Your task to perform on an android device: Open display settings Image 0: 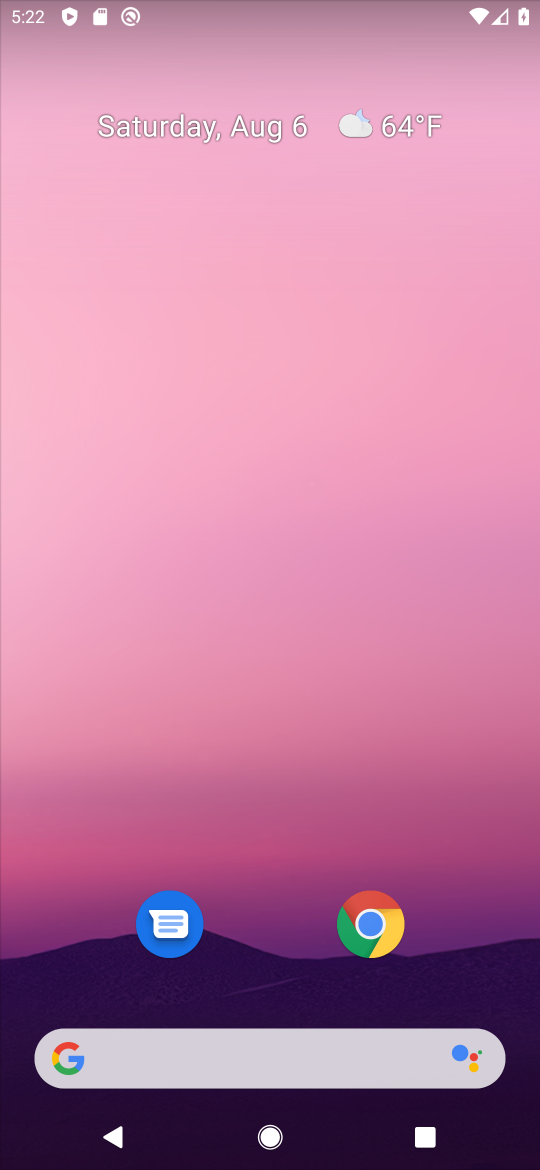
Step 0: drag from (269, 903) to (214, 1)
Your task to perform on an android device: Open display settings Image 1: 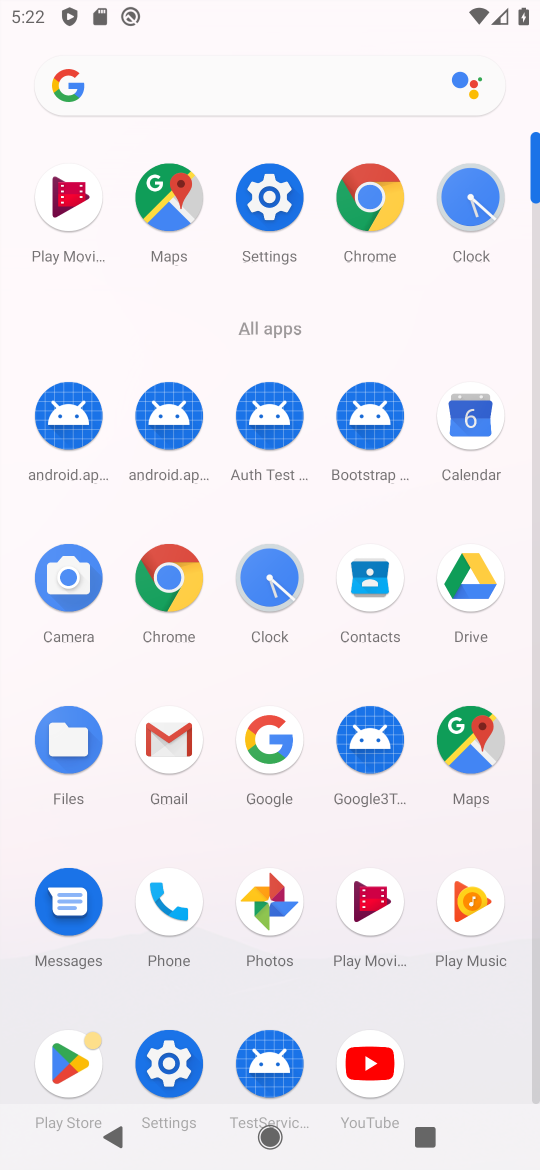
Step 1: click (272, 194)
Your task to perform on an android device: Open display settings Image 2: 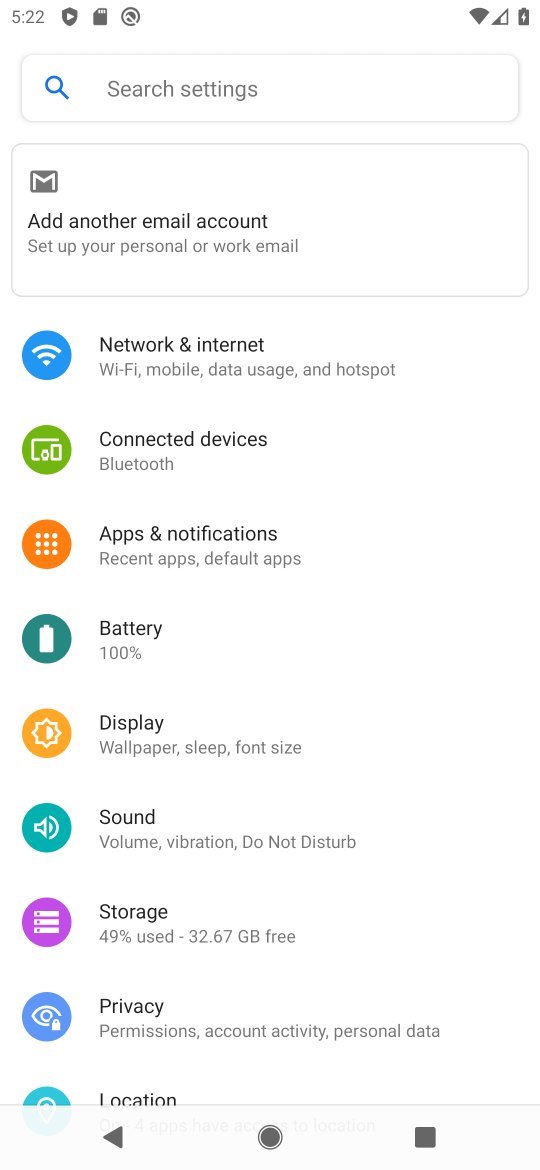
Step 2: click (131, 716)
Your task to perform on an android device: Open display settings Image 3: 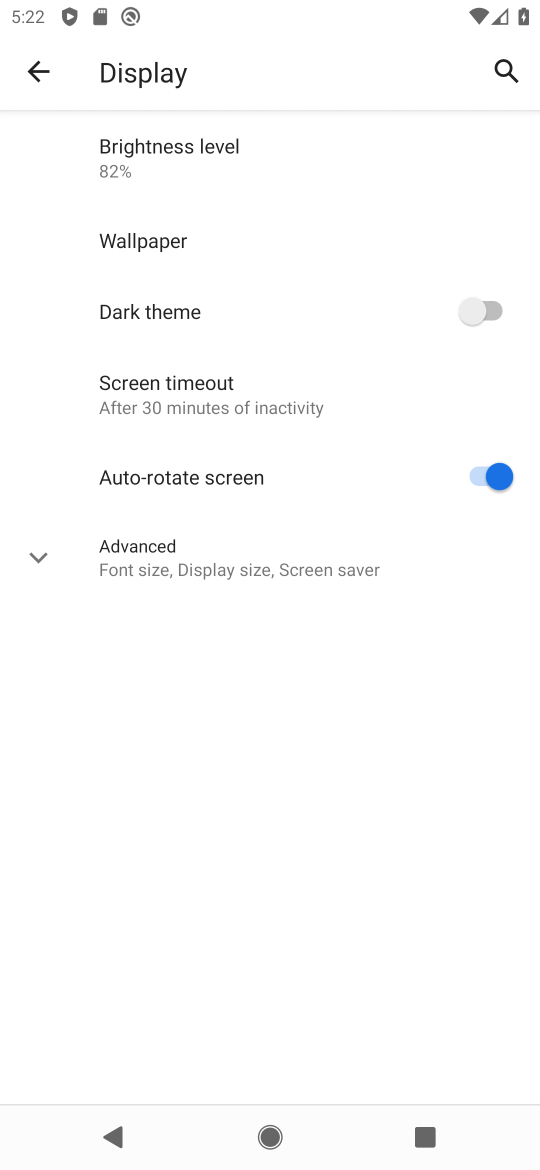
Step 3: task complete